Your task to perform on an android device: Open settings Image 0: 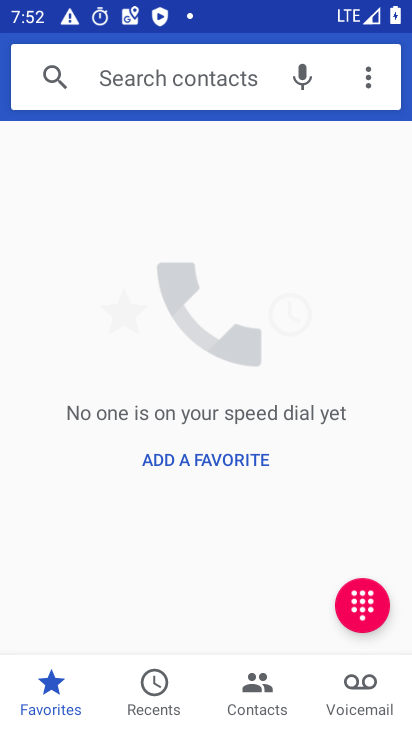
Step 0: press home button
Your task to perform on an android device: Open settings Image 1: 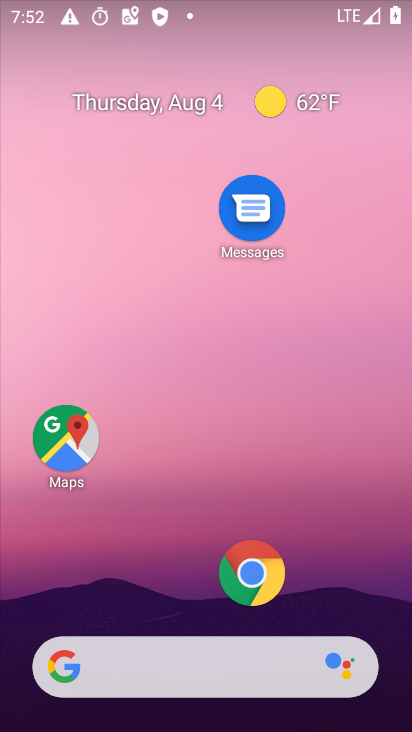
Step 1: drag from (164, 421) to (219, 112)
Your task to perform on an android device: Open settings Image 2: 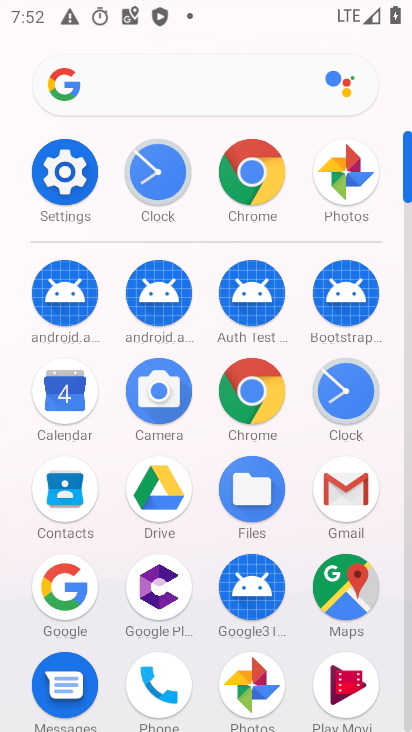
Step 2: click (62, 157)
Your task to perform on an android device: Open settings Image 3: 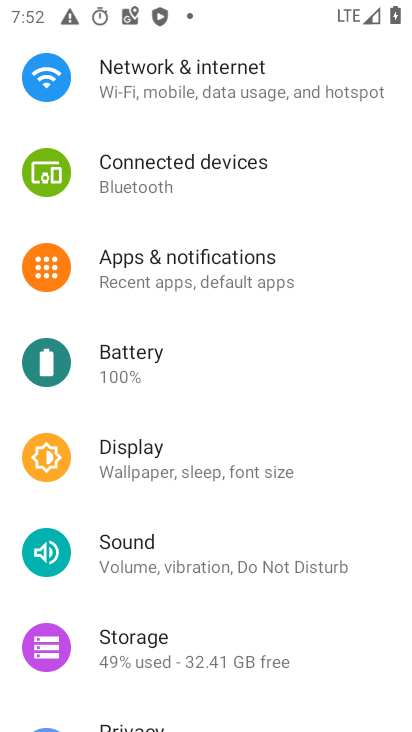
Step 3: task complete